Your task to perform on an android device: move an email to a new category in the gmail app Image 0: 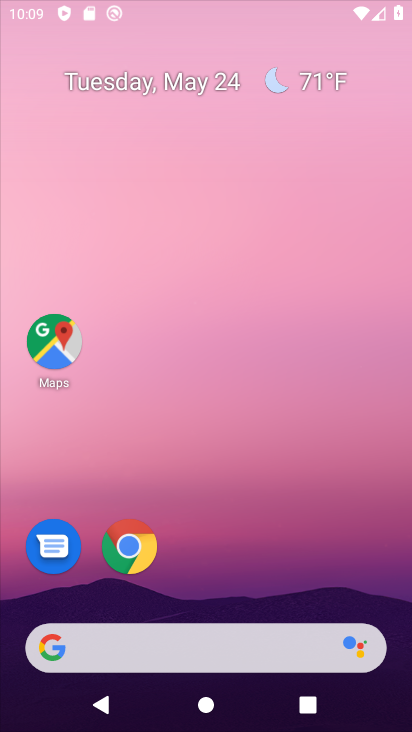
Step 0: drag from (297, 459) to (278, 89)
Your task to perform on an android device: move an email to a new category in the gmail app Image 1: 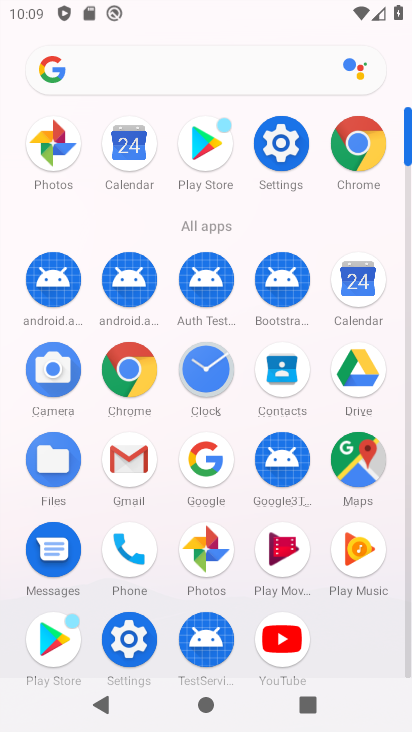
Step 1: click (124, 456)
Your task to perform on an android device: move an email to a new category in the gmail app Image 2: 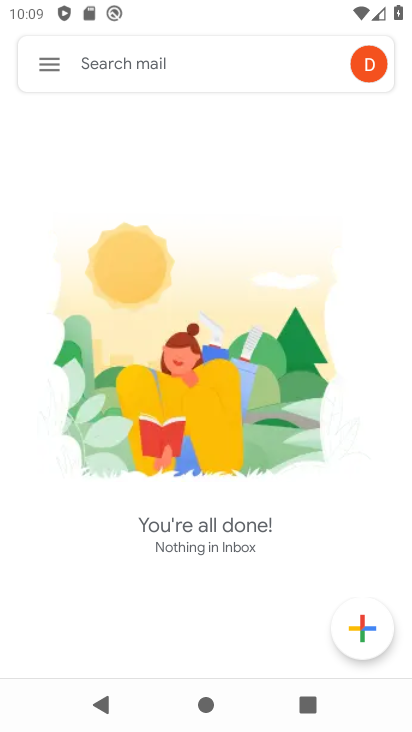
Step 2: click (44, 64)
Your task to perform on an android device: move an email to a new category in the gmail app Image 3: 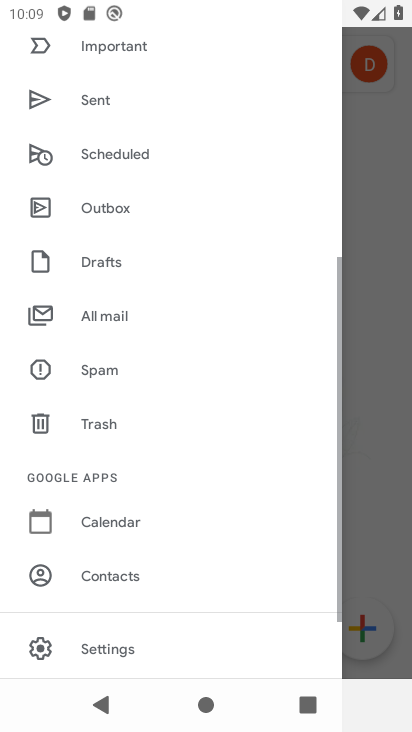
Step 3: drag from (136, 584) to (220, 194)
Your task to perform on an android device: move an email to a new category in the gmail app Image 4: 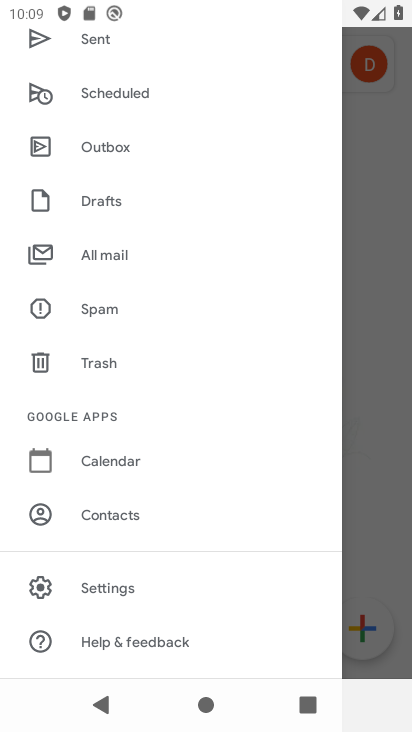
Step 4: drag from (207, 269) to (162, 528)
Your task to perform on an android device: move an email to a new category in the gmail app Image 5: 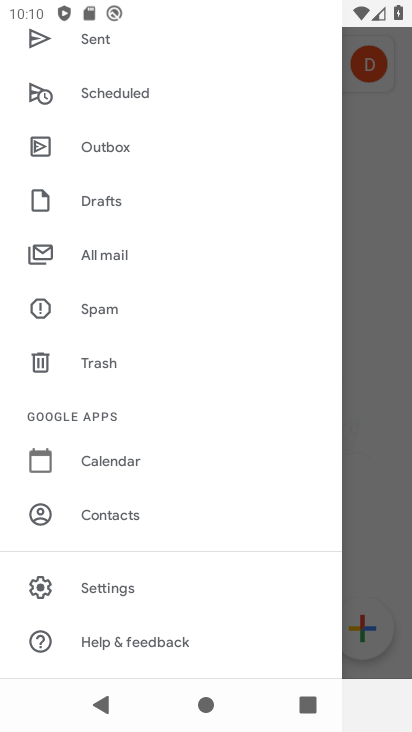
Step 5: click (114, 258)
Your task to perform on an android device: move an email to a new category in the gmail app Image 6: 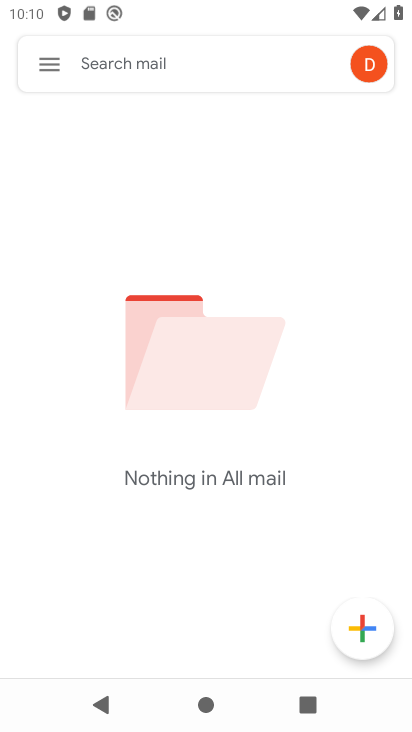
Step 6: task complete